Your task to perform on an android device: change your default location settings in chrome Image 0: 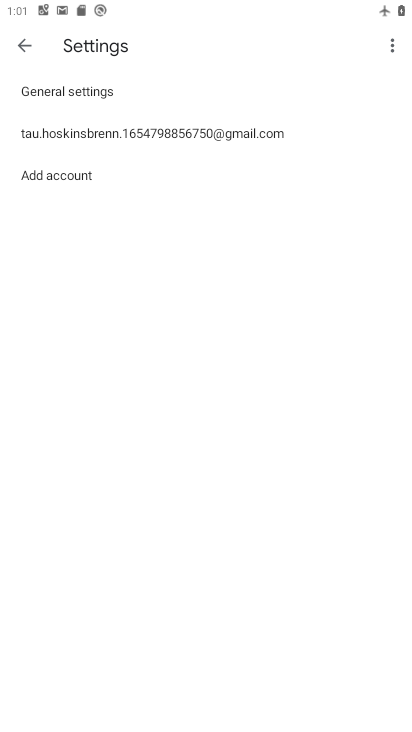
Step 0: press home button
Your task to perform on an android device: change your default location settings in chrome Image 1: 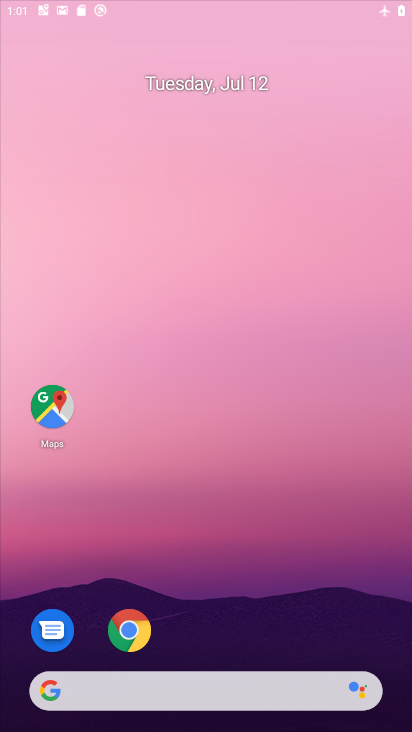
Step 1: drag from (219, 645) to (272, 100)
Your task to perform on an android device: change your default location settings in chrome Image 2: 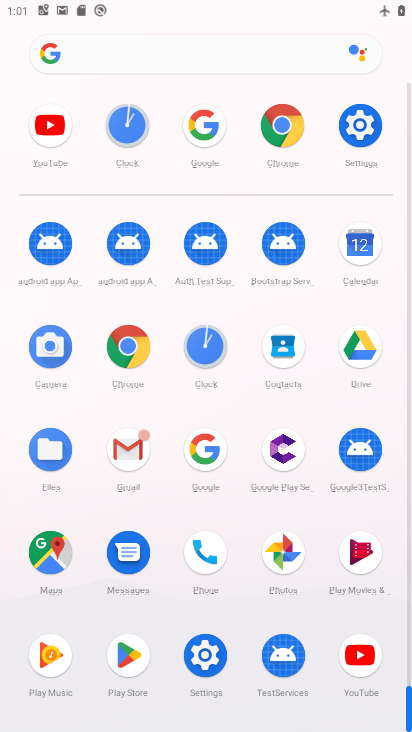
Step 2: click (282, 138)
Your task to perform on an android device: change your default location settings in chrome Image 3: 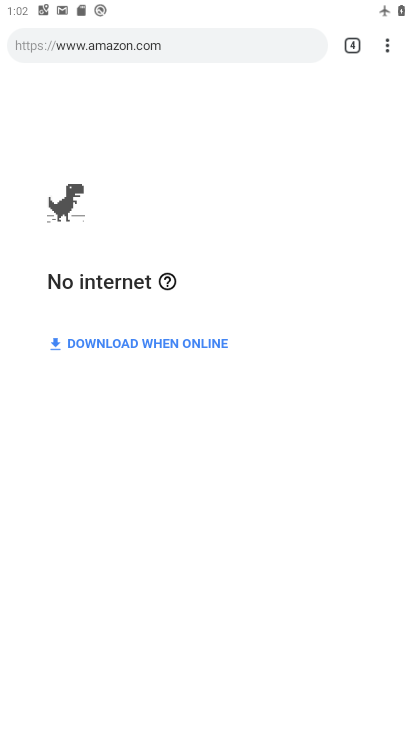
Step 3: click (387, 54)
Your task to perform on an android device: change your default location settings in chrome Image 4: 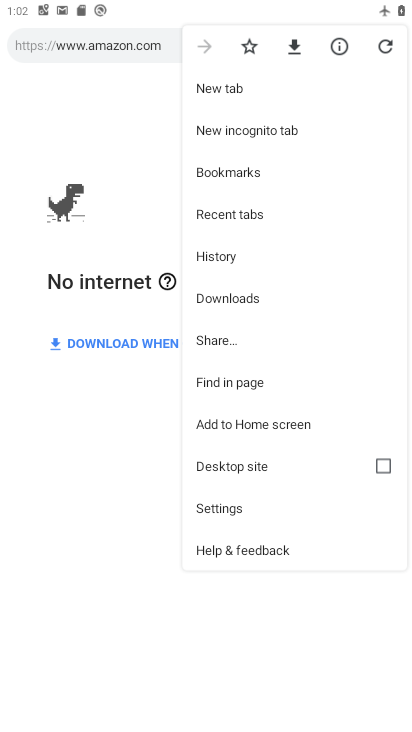
Step 4: click (218, 506)
Your task to perform on an android device: change your default location settings in chrome Image 5: 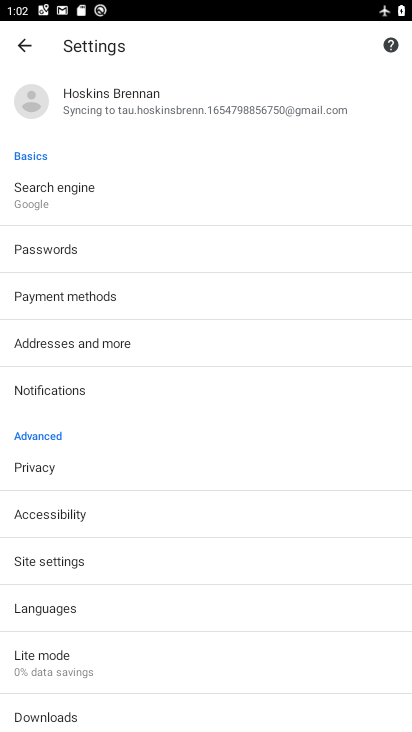
Step 5: drag from (149, 593) to (160, 368)
Your task to perform on an android device: change your default location settings in chrome Image 6: 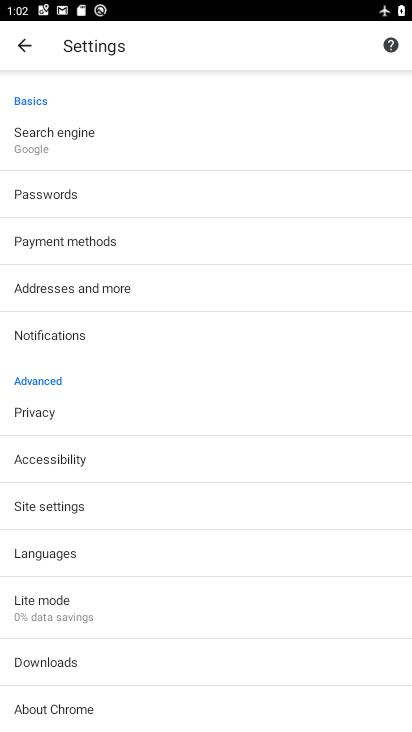
Step 6: click (71, 513)
Your task to perform on an android device: change your default location settings in chrome Image 7: 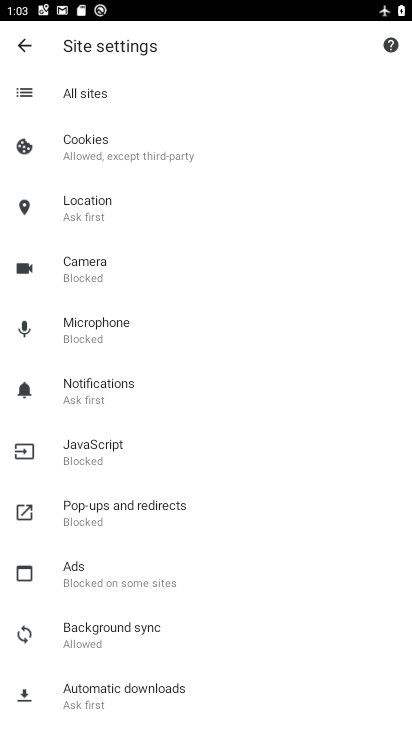
Step 7: drag from (111, 616) to (129, 340)
Your task to perform on an android device: change your default location settings in chrome Image 8: 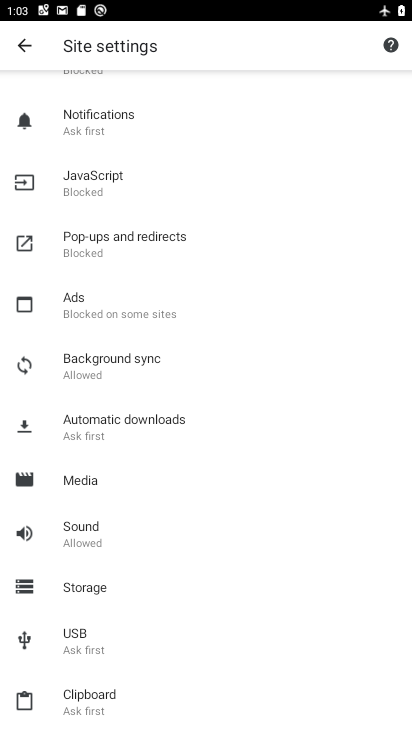
Step 8: drag from (139, 567) to (156, 703)
Your task to perform on an android device: change your default location settings in chrome Image 9: 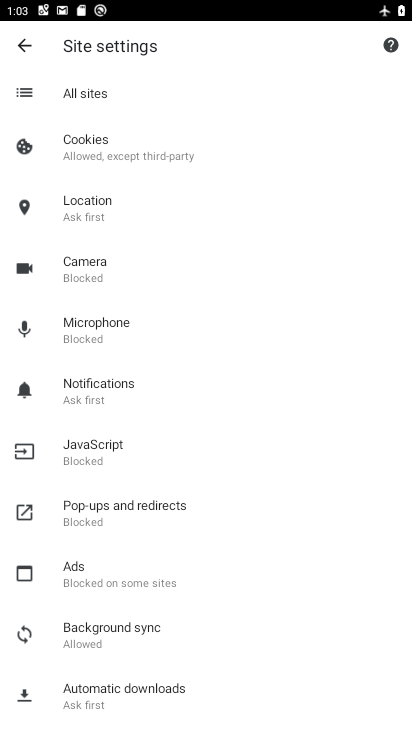
Step 9: click (112, 218)
Your task to perform on an android device: change your default location settings in chrome Image 10: 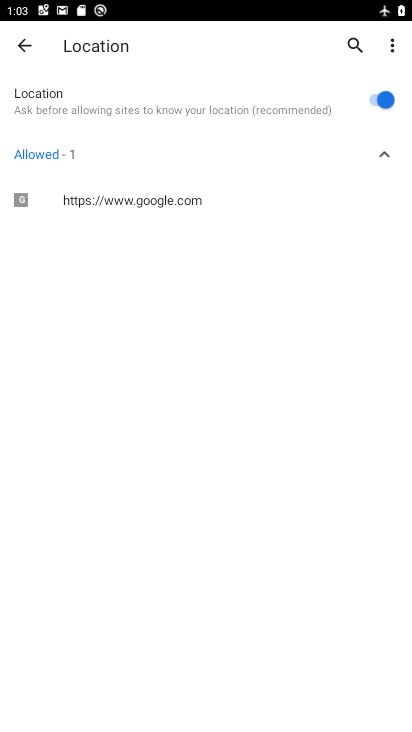
Step 10: click (384, 103)
Your task to perform on an android device: change your default location settings in chrome Image 11: 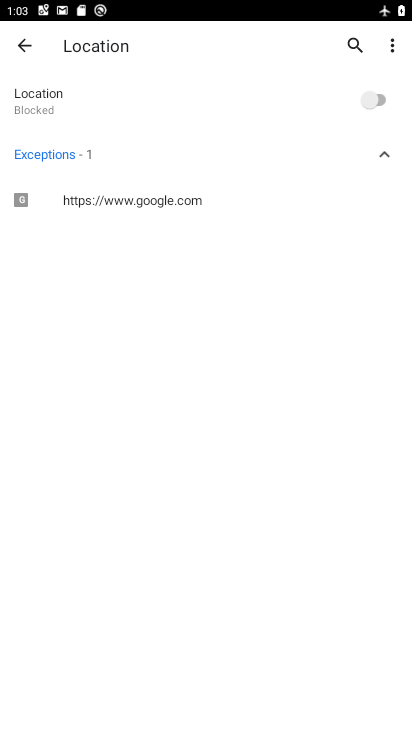
Step 11: task complete